Your task to perform on an android device: Open privacy settings Image 0: 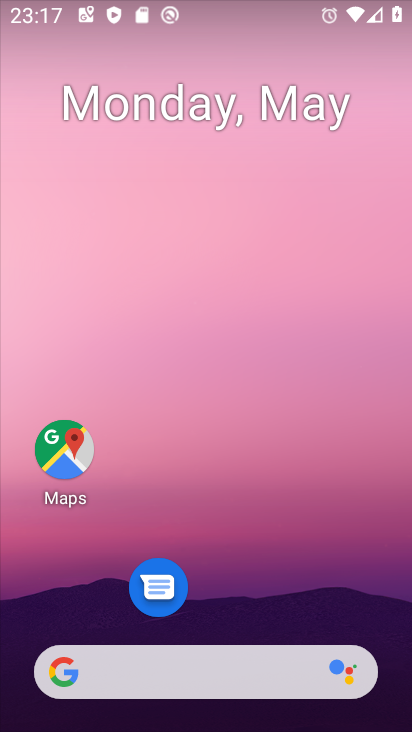
Step 0: drag from (208, 650) to (283, 23)
Your task to perform on an android device: Open privacy settings Image 1: 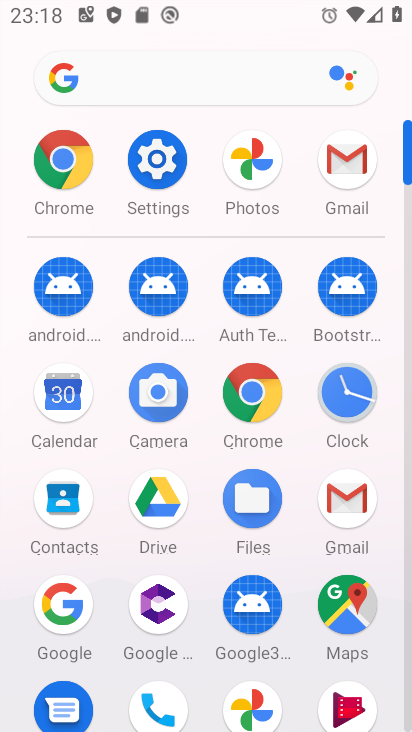
Step 1: click (152, 168)
Your task to perform on an android device: Open privacy settings Image 2: 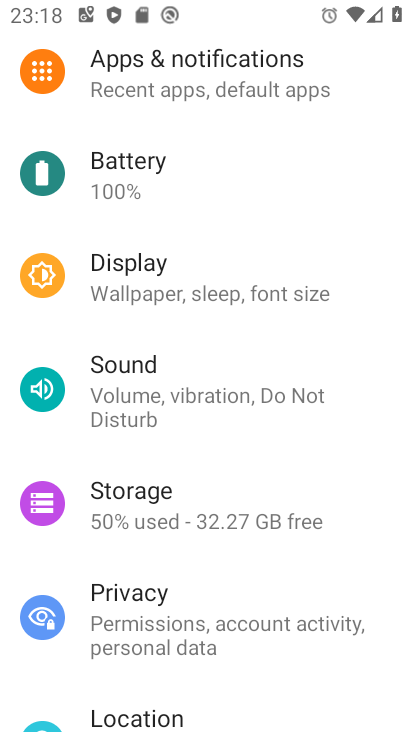
Step 2: click (116, 625)
Your task to perform on an android device: Open privacy settings Image 3: 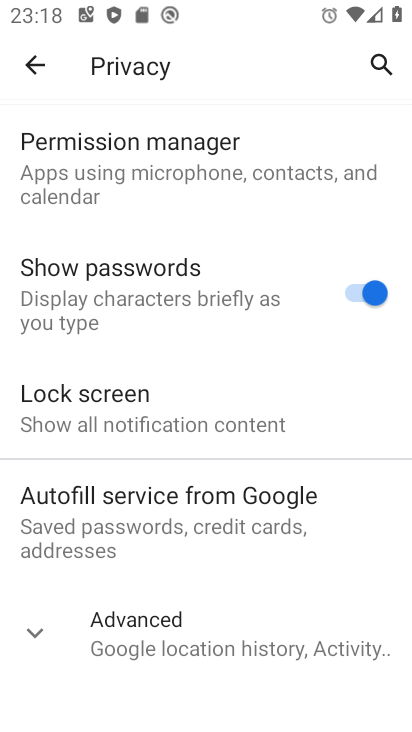
Step 3: task complete